Your task to perform on an android device: change the clock display to show seconds Image 0: 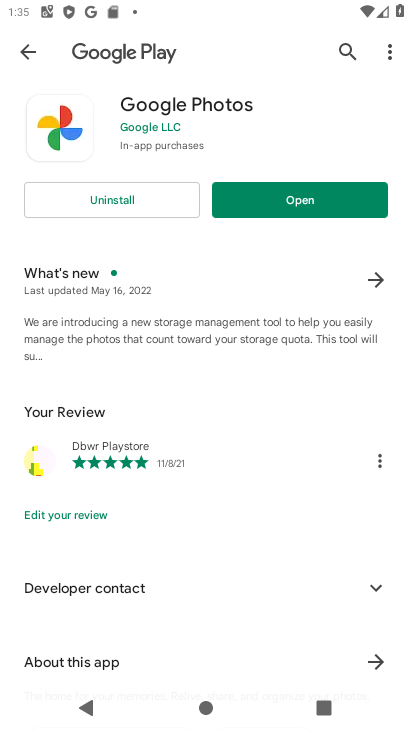
Step 0: press home button
Your task to perform on an android device: change the clock display to show seconds Image 1: 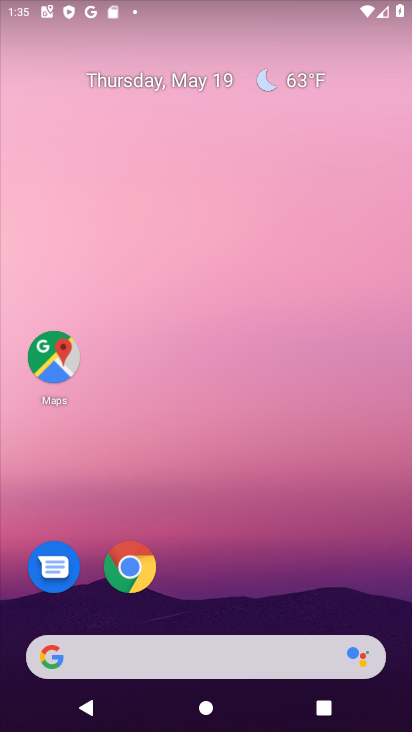
Step 1: drag from (280, 572) to (345, 118)
Your task to perform on an android device: change the clock display to show seconds Image 2: 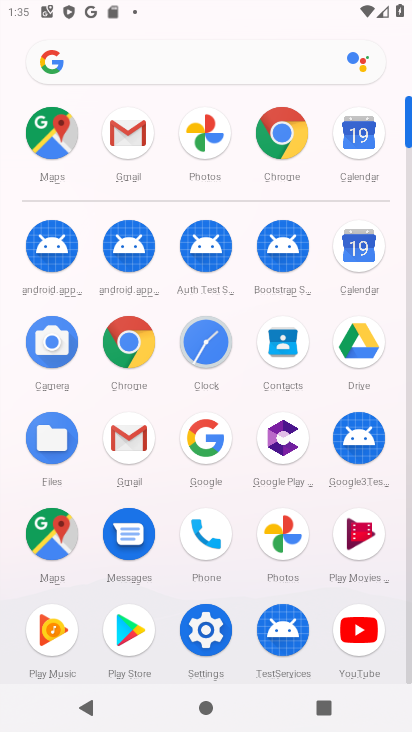
Step 2: click (199, 354)
Your task to perform on an android device: change the clock display to show seconds Image 3: 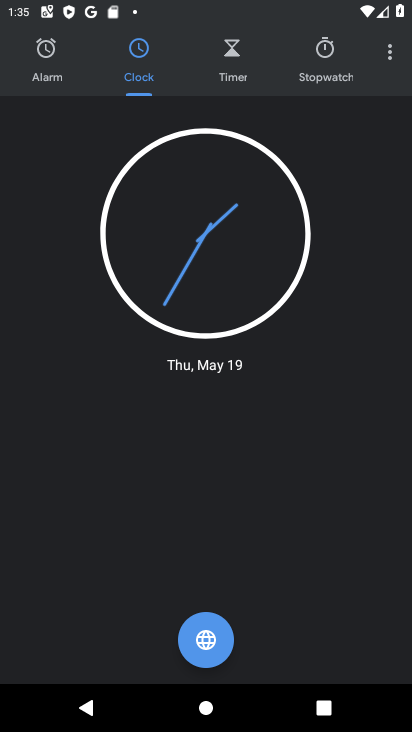
Step 3: click (395, 48)
Your task to perform on an android device: change the clock display to show seconds Image 4: 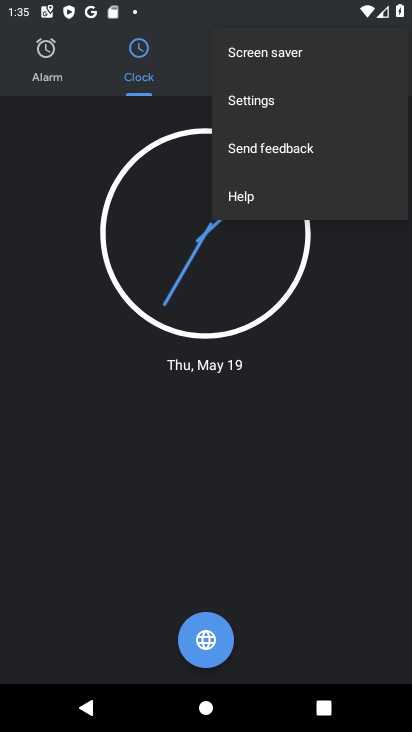
Step 4: click (266, 101)
Your task to perform on an android device: change the clock display to show seconds Image 5: 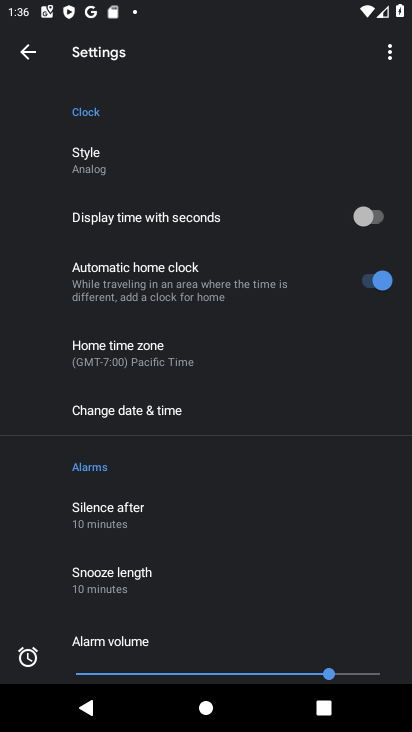
Step 5: click (349, 216)
Your task to perform on an android device: change the clock display to show seconds Image 6: 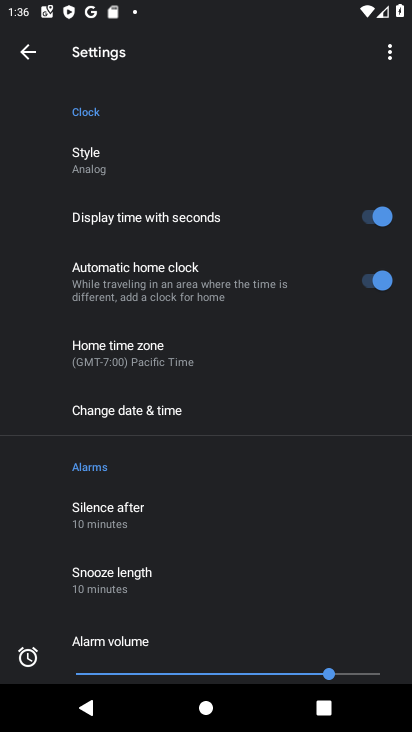
Step 6: task complete